Your task to perform on an android device: find snoozed emails in the gmail app Image 0: 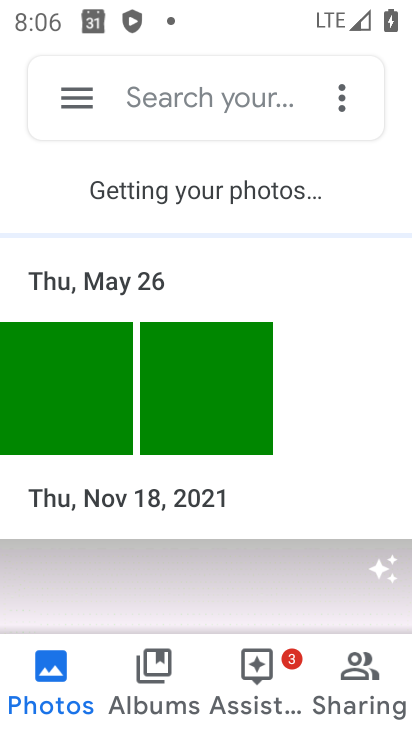
Step 0: press back button
Your task to perform on an android device: find snoozed emails in the gmail app Image 1: 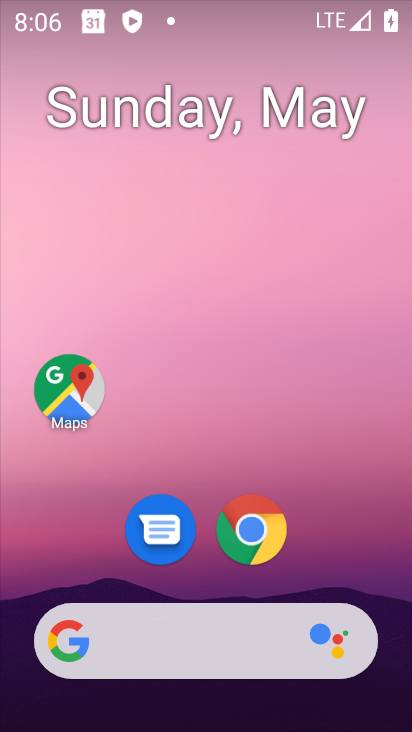
Step 1: drag from (189, 599) to (310, 12)
Your task to perform on an android device: find snoozed emails in the gmail app Image 2: 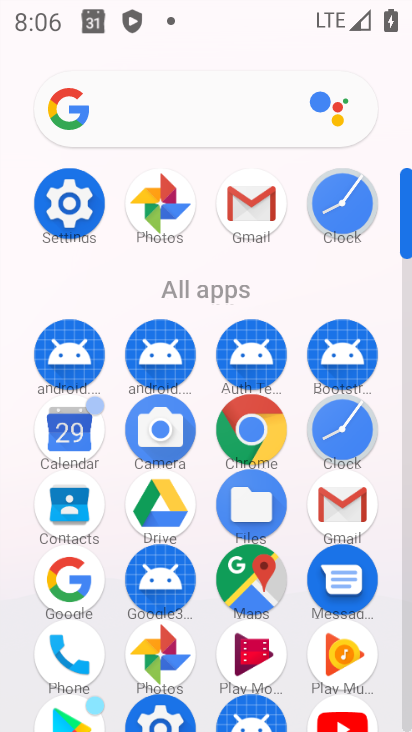
Step 2: click (247, 194)
Your task to perform on an android device: find snoozed emails in the gmail app Image 3: 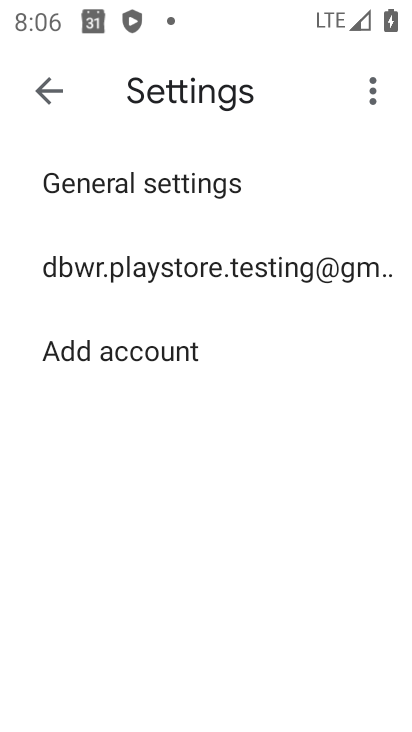
Step 3: click (54, 93)
Your task to perform on an android device: find snoozed emails in the gmail app Image 4: 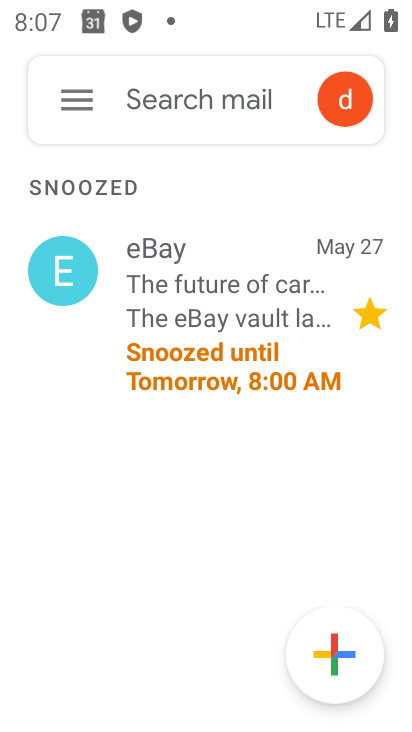
Step 4: click (71, 98)
Your task to perform on an android device: find snoozed emails in the gmail app Image 5: 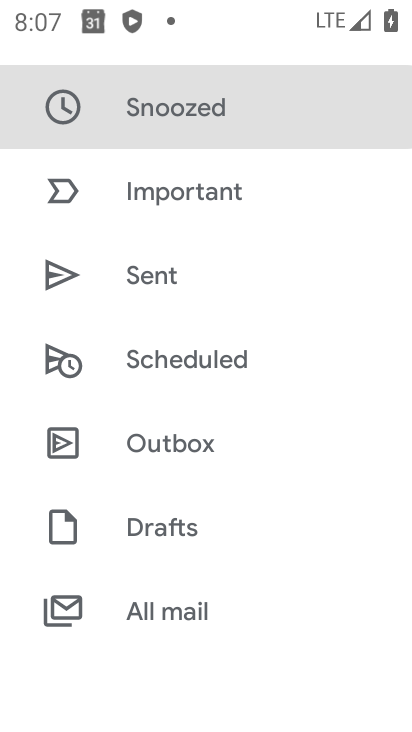
Step 5: click (160, 117)
Your task to perform on an android device: find snoozed emails in the gmail app Image 6: 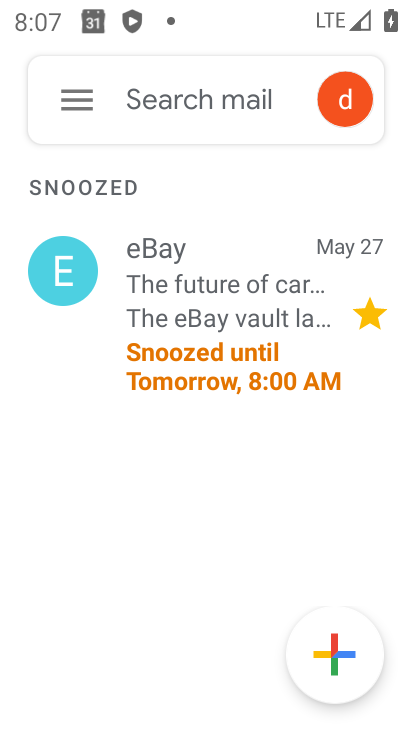
Step 6: task complete